Your task to perform on an android device: star an email in the gmail app Image 0: 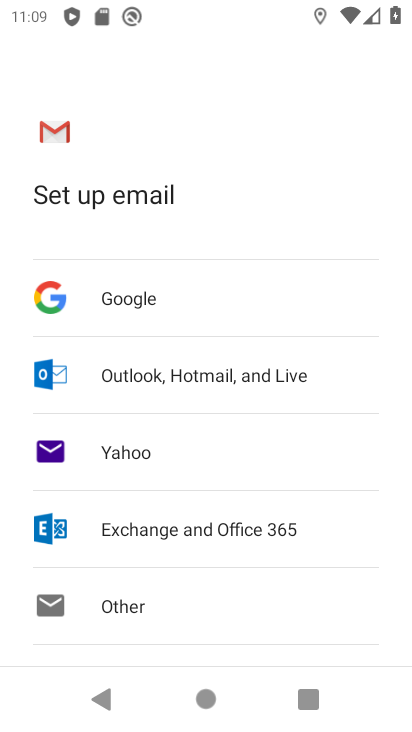
Step 0: press home button
Your task to perform on an android device: star an email in the gmail app Image 1: 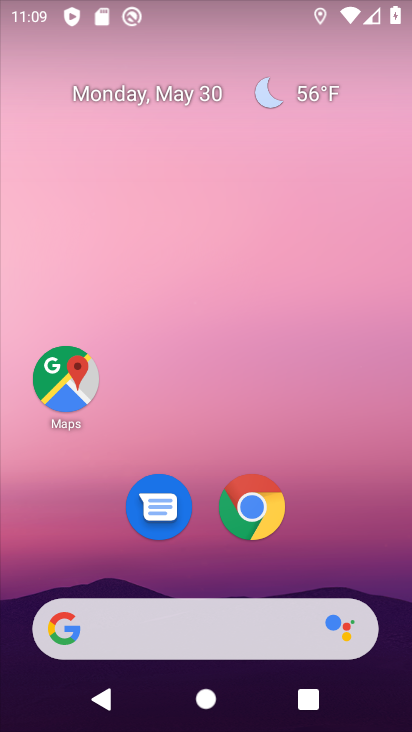
Step 1: drag from (169, 605) to (117, 61)
Your task to perform on an android device: star an email in the gmail app Image 2: 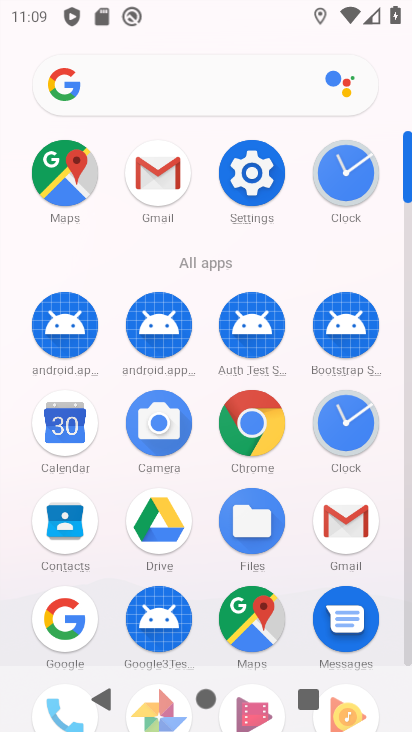
Step 2: click (350, 548)
Your task to perform on an android device: star an email in the gmail app Image 3: 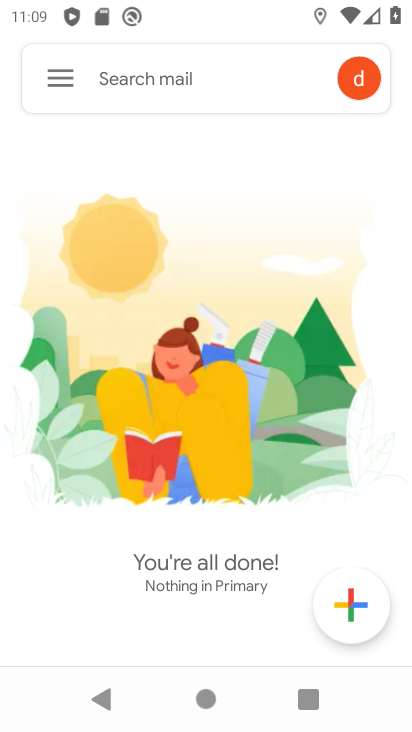
Step 3: click (67, 86)
Your task to perform on an android device: star an email in the gmail app Image 4: 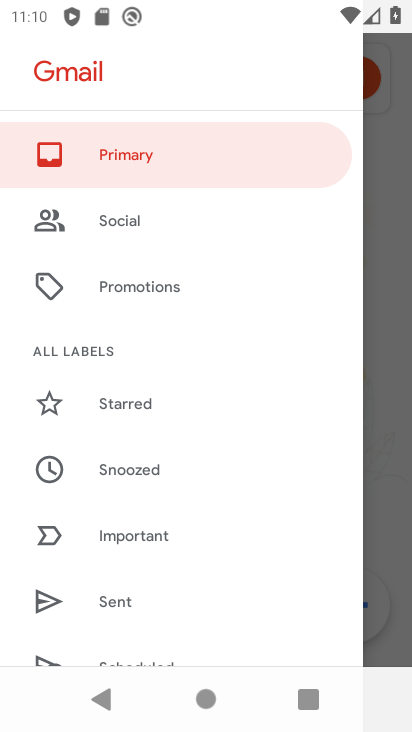
Step 4: drag from (263, 616) to (275, 177)
Your task to perform on an android device: star an email in the gmail app Image 5: 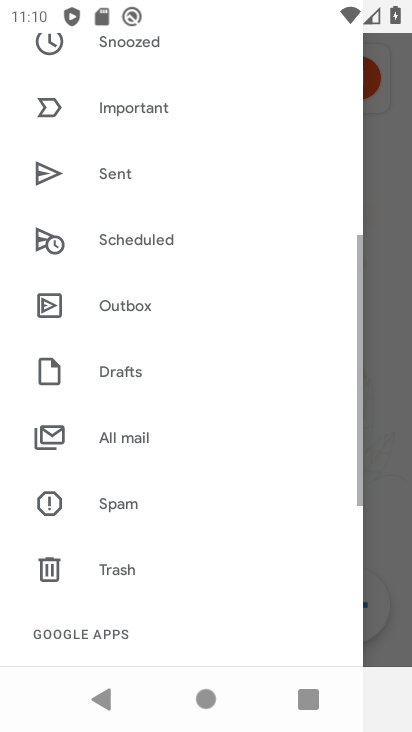
Step 5: click (145, 425)
Your task to perform on an android device: star an email in the gmail app Image 6: 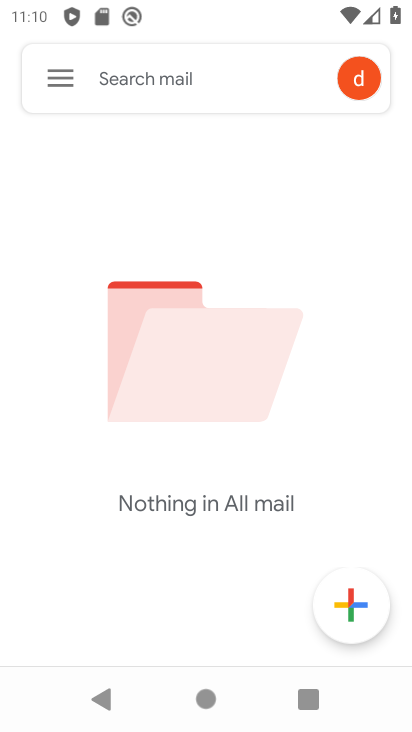
Step 6: task complete